Your task to perform on an android device: Find coffee shops on Maps Image 0: 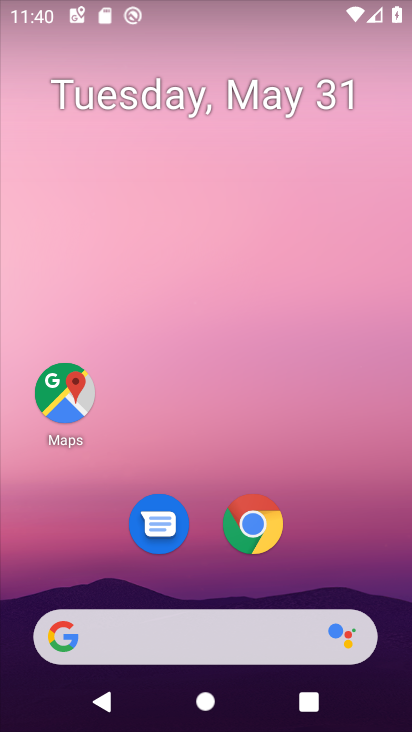
Step 0: click (64, 381)
Your task to perform on an android device: Find coffee shops on Maps Image 1: 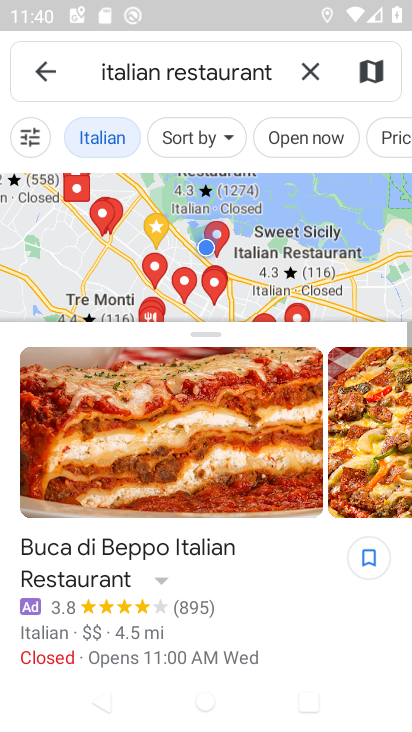
Step 1: click (306, 62)
Your task to perform on an android device: Find coffee shops on Maps Image 2: 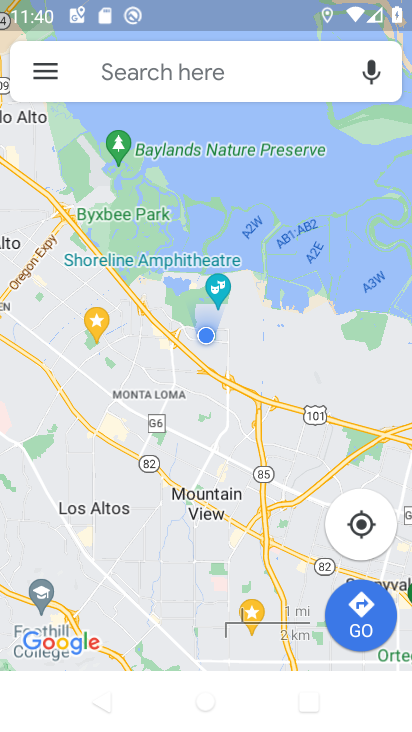
Step 2: click (200, 68)
Your task to perform on an android device: Find coffee shops on Maps Image 3: 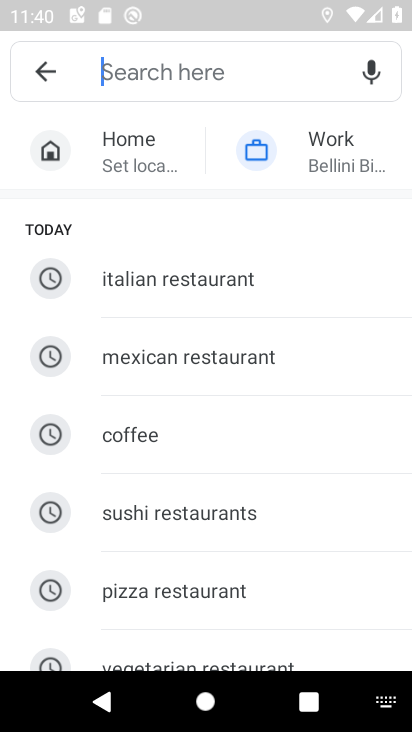
Step 3: click (177, 431)
Your task to perform on an android device: Find coffee shops on Maps Image 4: 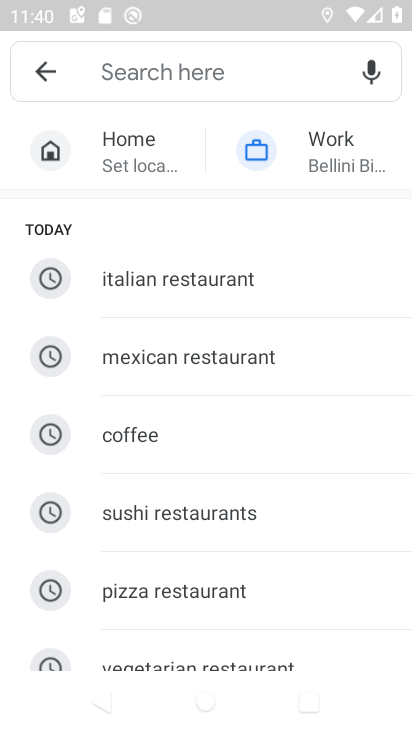
Step 4: click (145, 431)
Your task to perform on an android device: Find coffee shops on Maps Image 5: 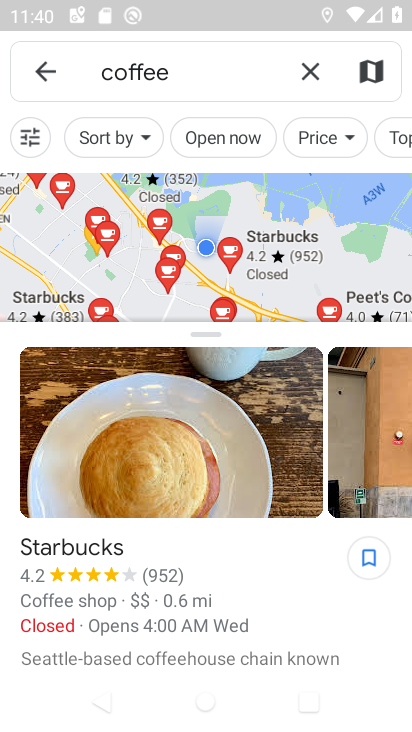
Step 5: task complete